Your task to perform on an android device: Toggle the flashlight Image 0: 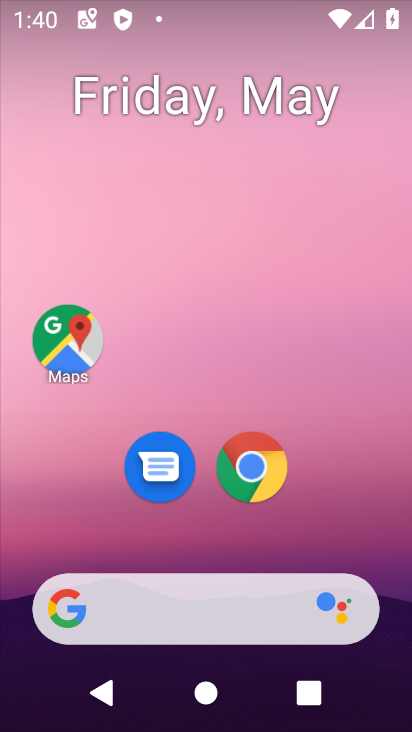
Step 0: drag from (341, 497) to (221, 10)
Your task to perform on an android device: Toggle the flashlight Image 1: 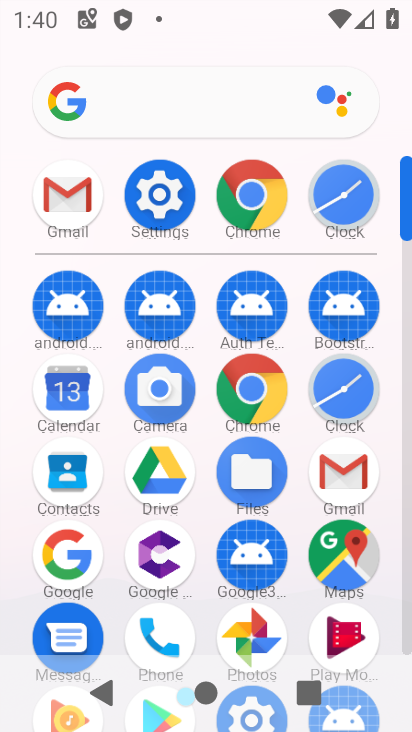
Step 1: click (180, 211)
Your task to perform on an android device: Toggle the flashlight Image 2: 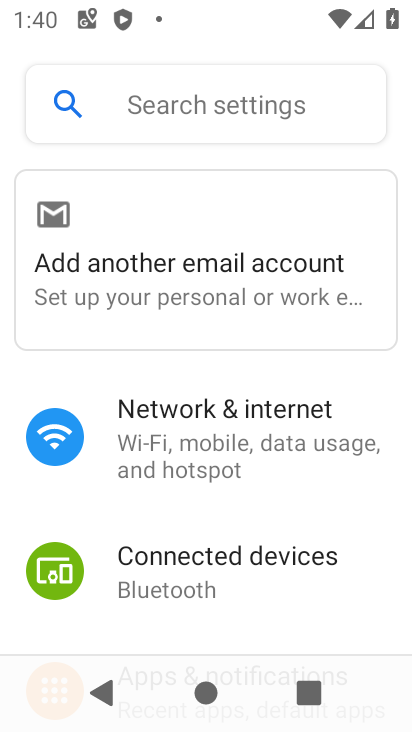
Step 2: task complete